Your task to perform on an android device: Add "razer deathadder" to the cart on walmart.com Image 0: 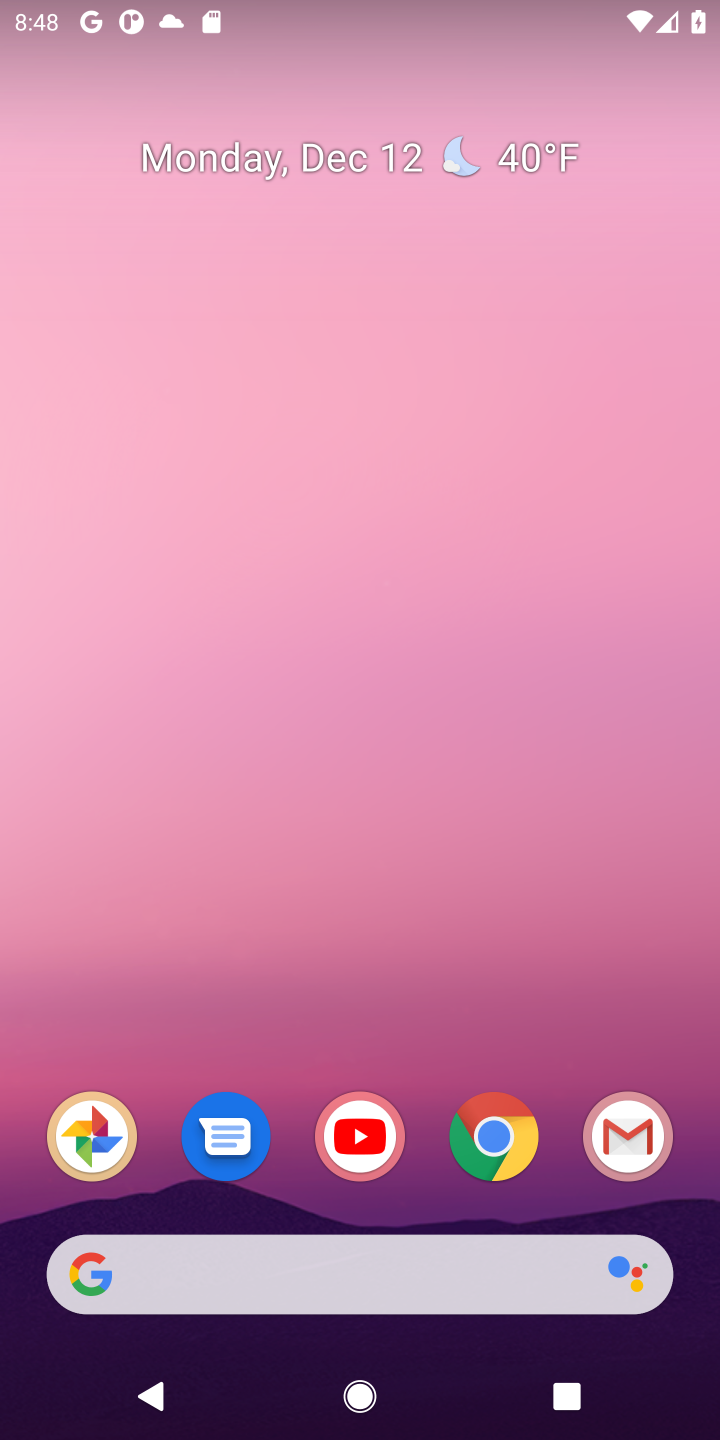
Step 0: click (490, 1151)
Your task to perform on an android device: Add "razer deathadder" to the cart on walmart.com Image 1: 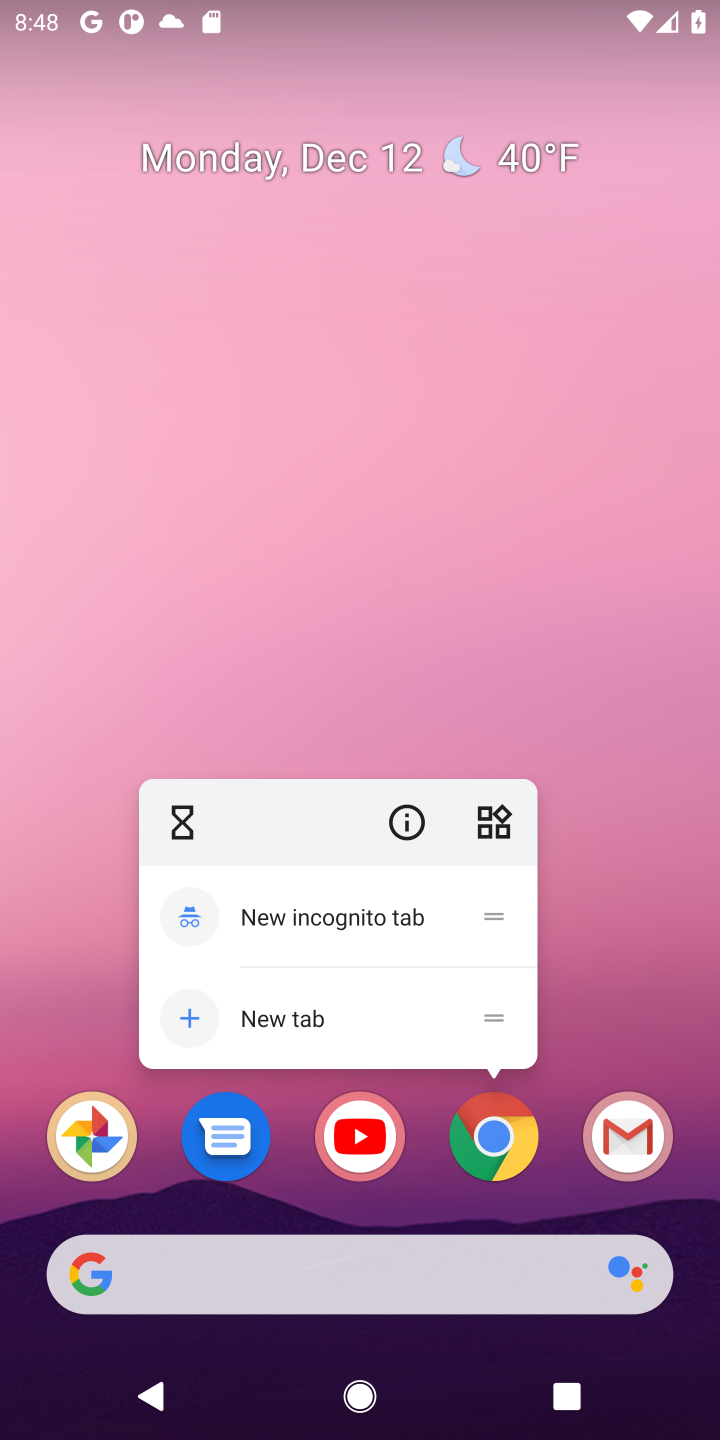
Step 1: click (503, 1143)
Your task to perform on an android device: Add "razer deathadder" to the cart on walmart.com Image 2: 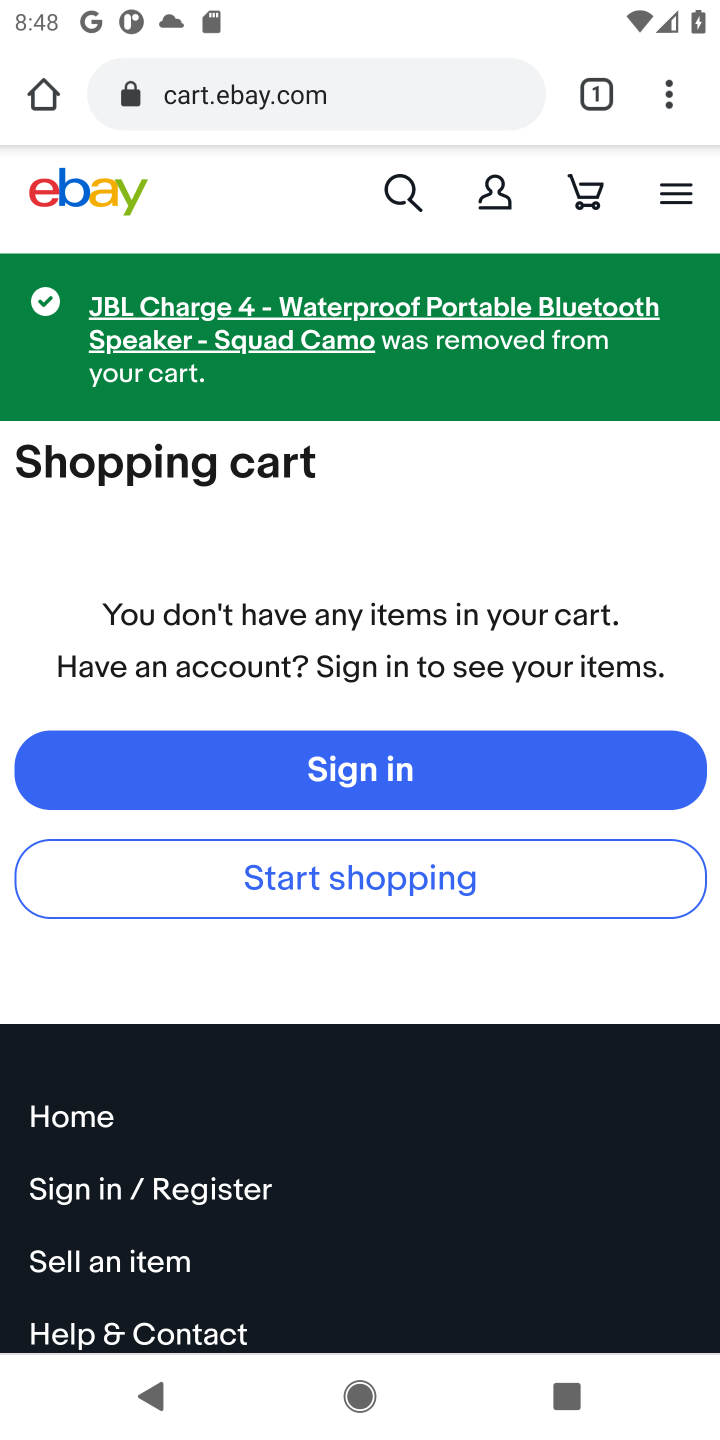
Step 2: click (262, 88)
Your task to perform on an android device: Add "razer deathadder" to the cart on walmart.com Image 3: 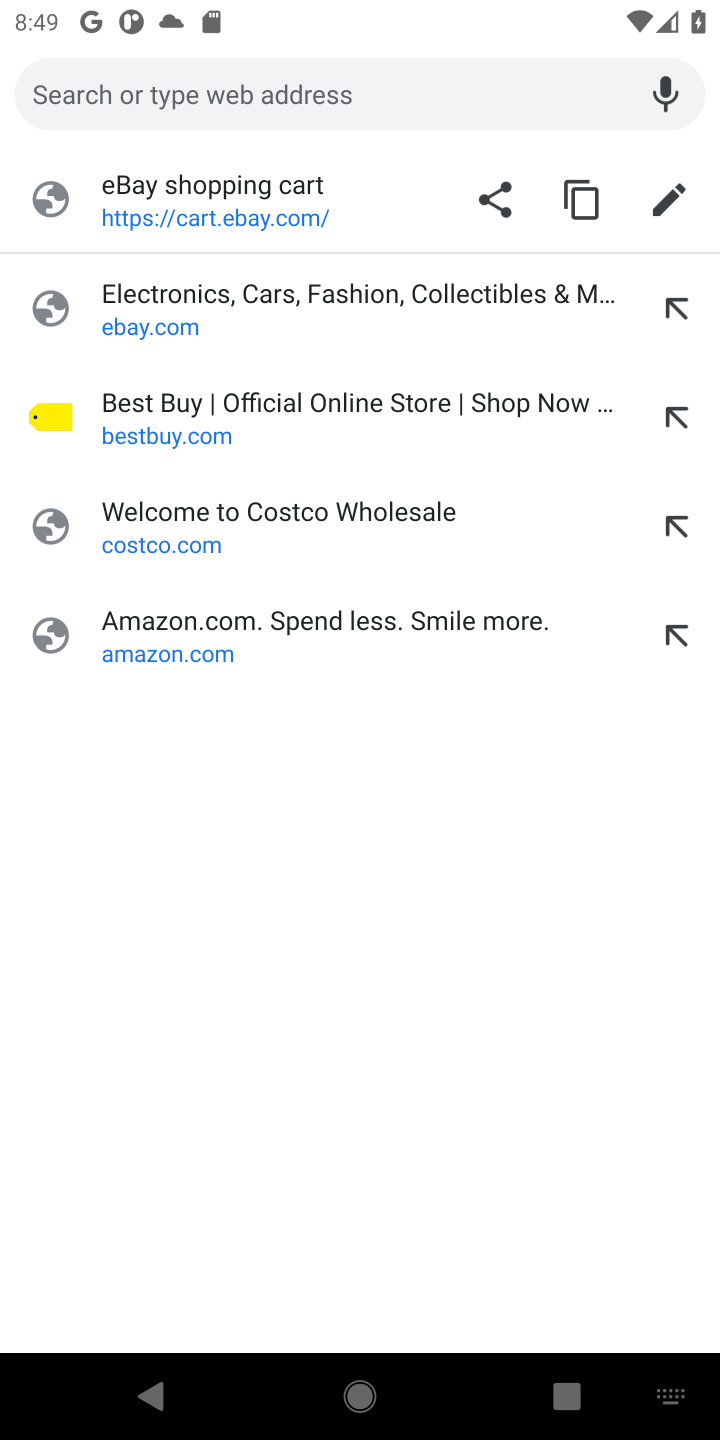
Step 3: type "walmart.com"
Your task to perform on an android device: Add "razer deathadder" to the cart on walmart.com Image 4: 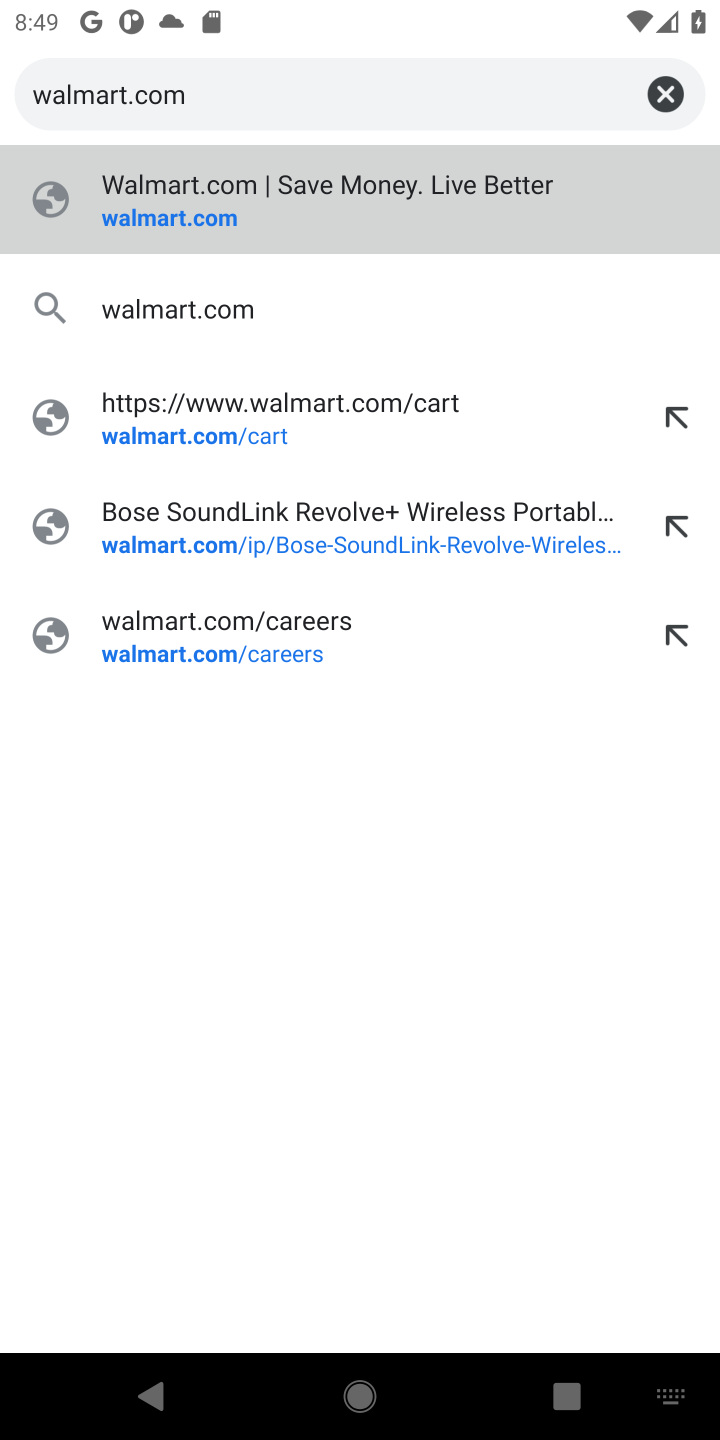
Step 4: click (189, 229)
Your task to perform on an android device: Add "razer deathadder" to the cart on walmart.com Image 5: 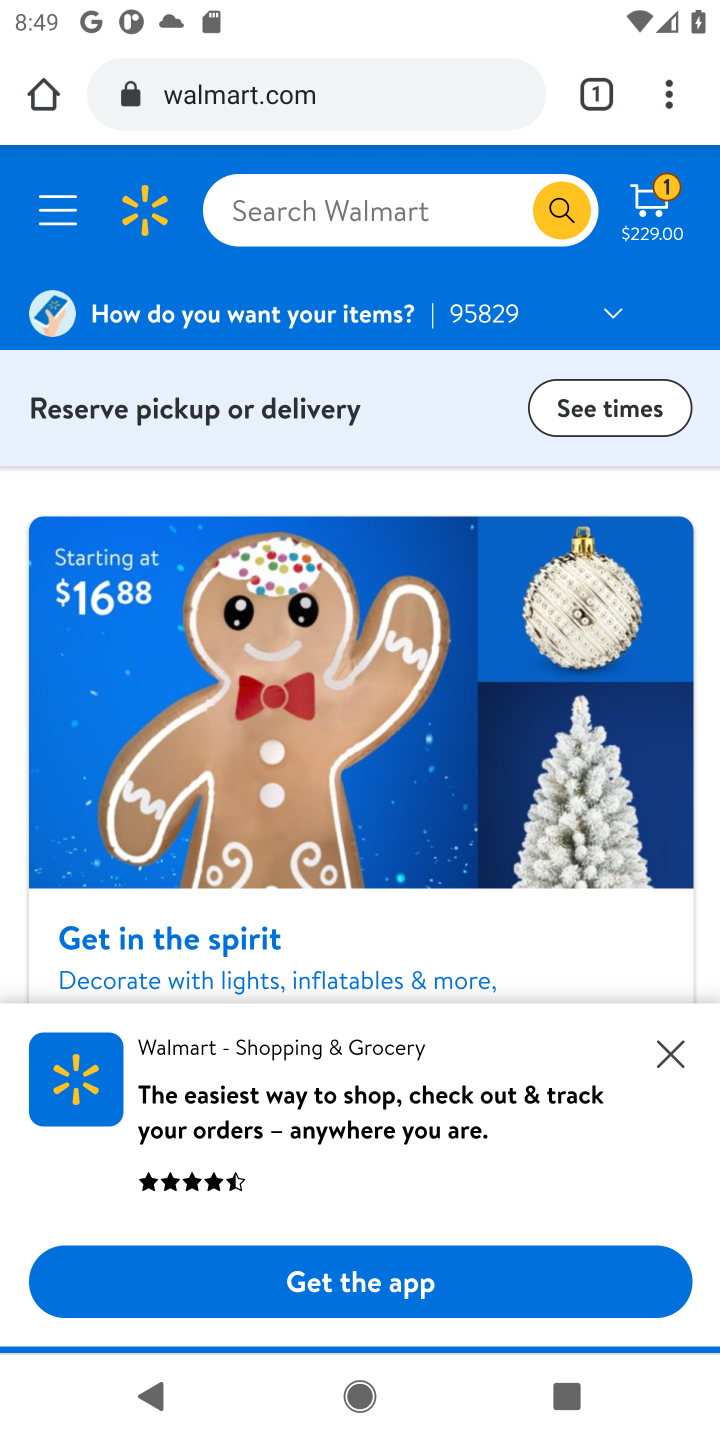
Step 5: click (293, 228)
Your task to perform on an android device: Add "razer deathadder" to the cart on walmart.com Image 6: 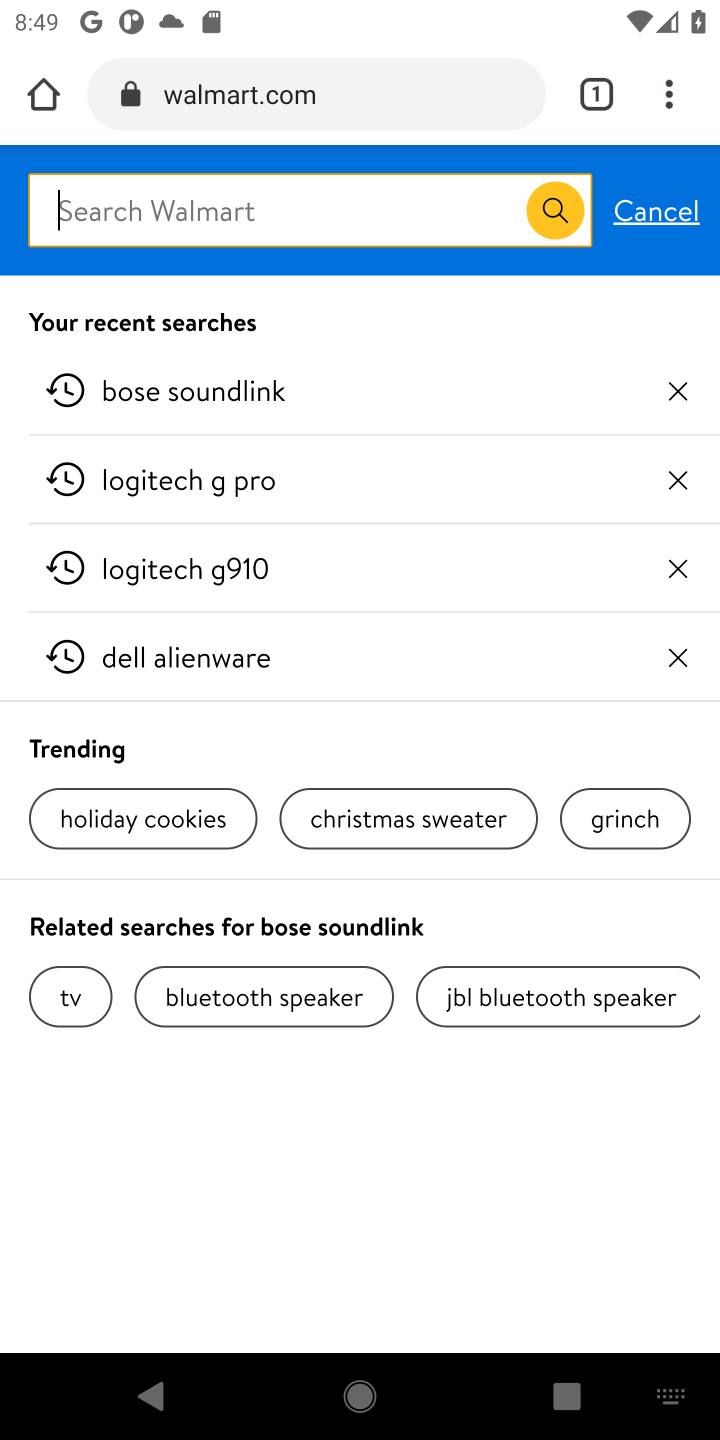
Step 6: type "razer deathadder"
Your task to perform on an android device: Add "razer deathadder" to the cart on walmart.com Image 7: 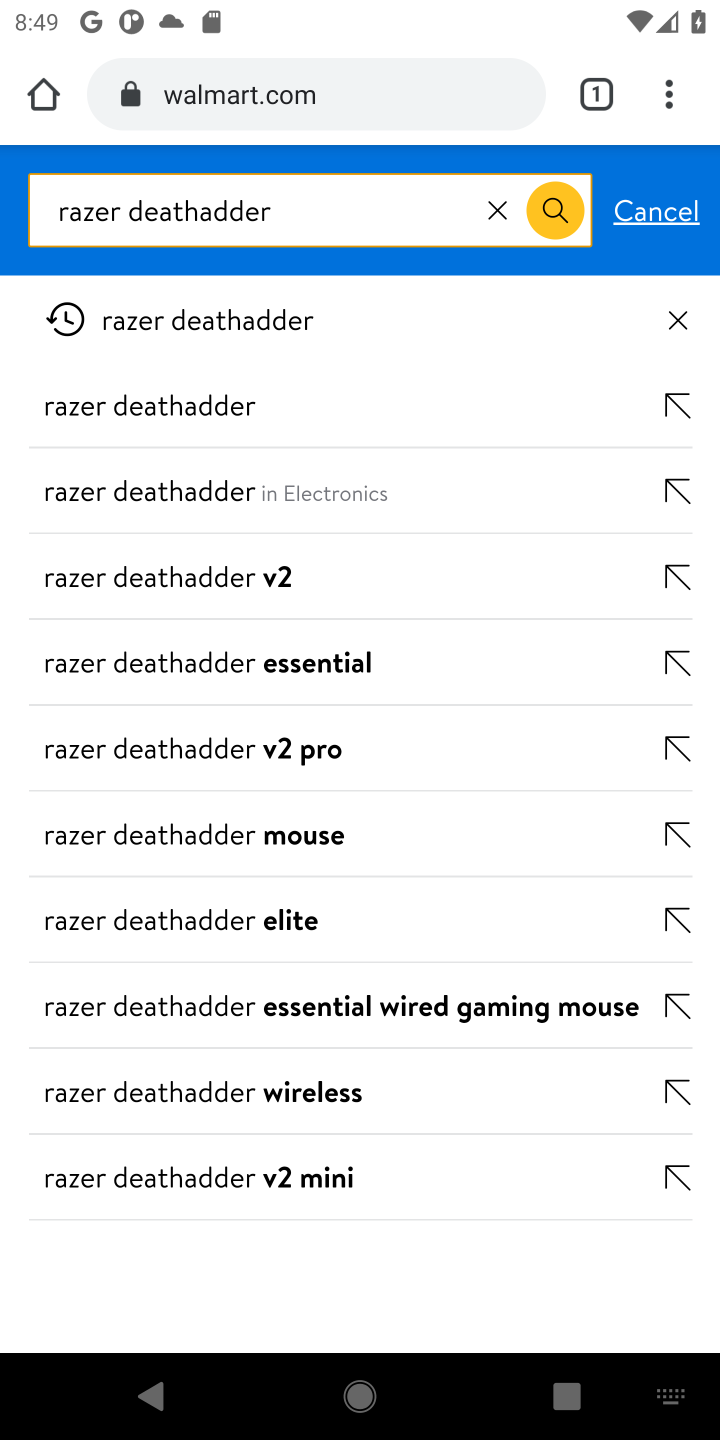
Step 7: click (149, 418)
Your task to perform on an android device: Add "razer deathadder" to the cart on walmart.com Image 8: 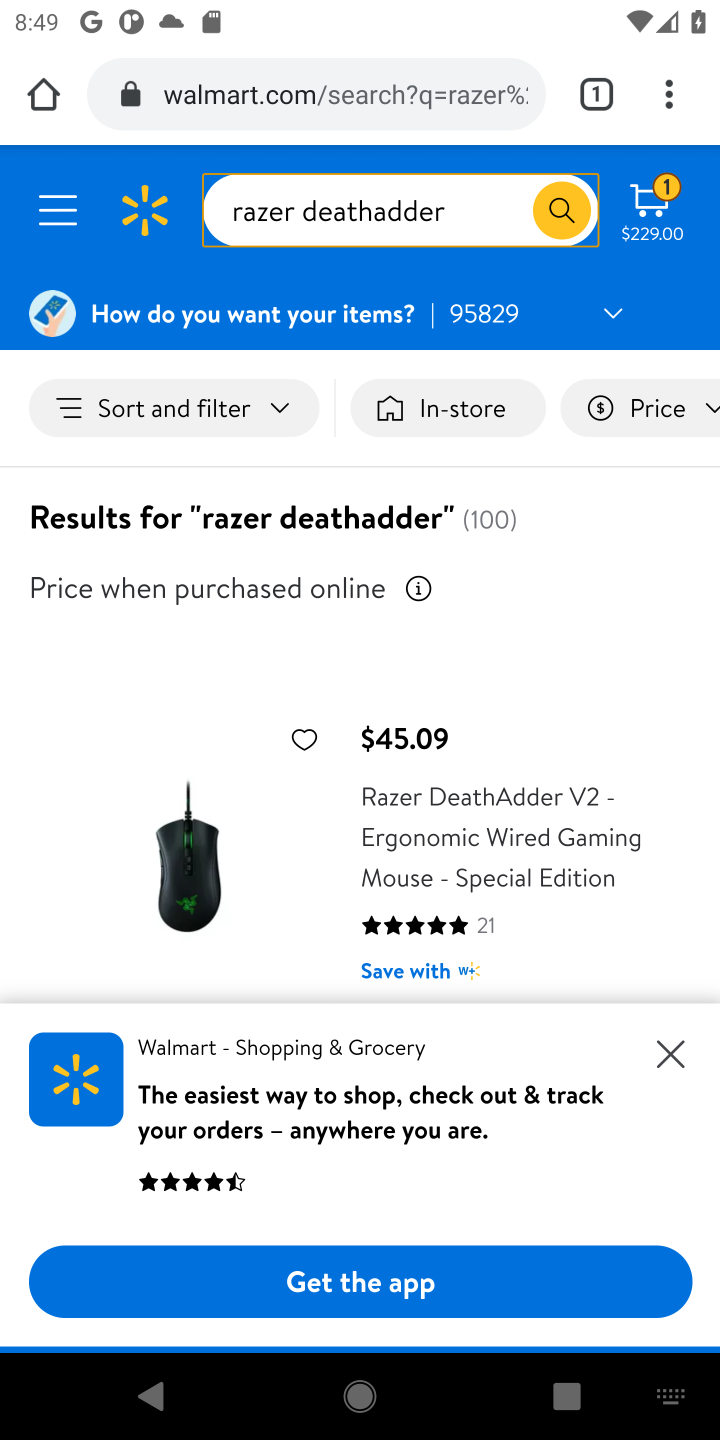
Step 8: drag from (268, 862) to (313, 394)
Your task to perform on an android device: Add "razer deathadder" to the cart on walmart.com Image 9: 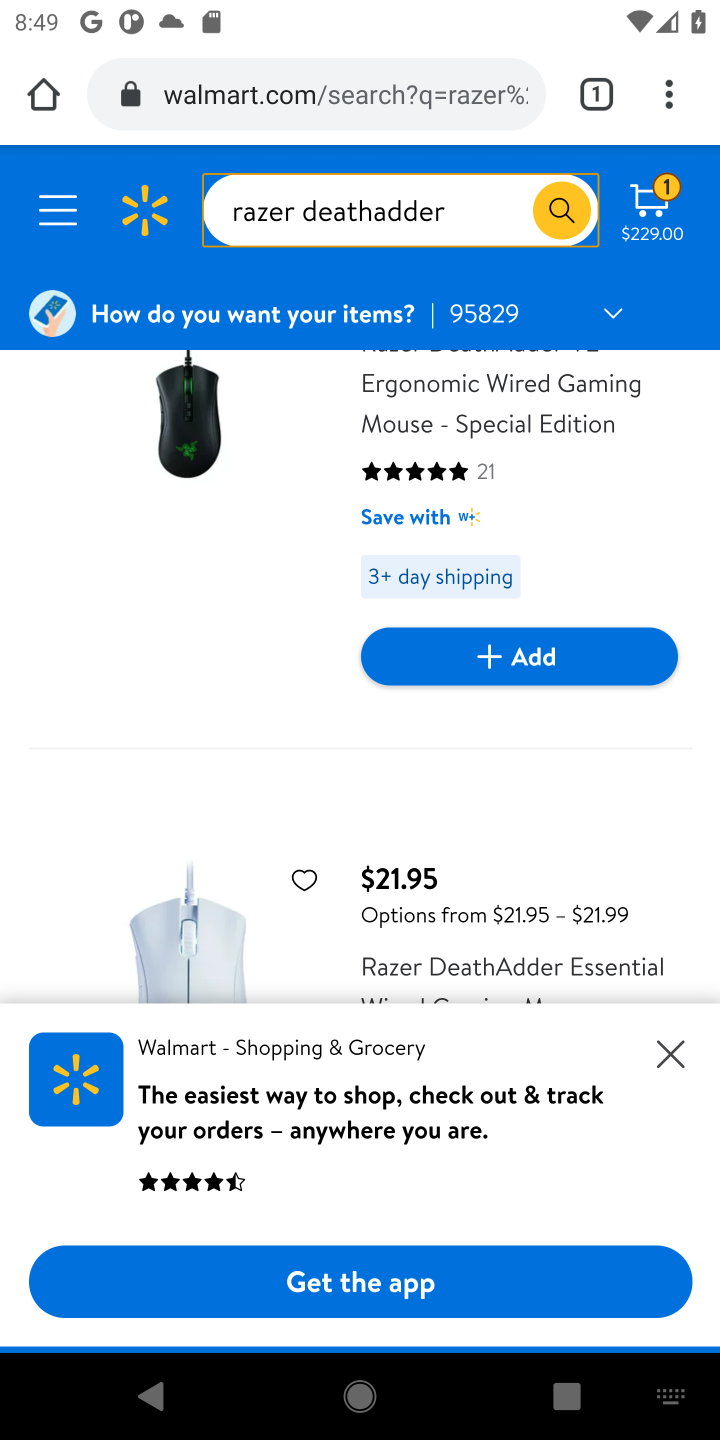
Step 9: click (476, 650)
Your task to perform on an android device: Add "razer deathadder" to the cart on walmart.com Image 10: 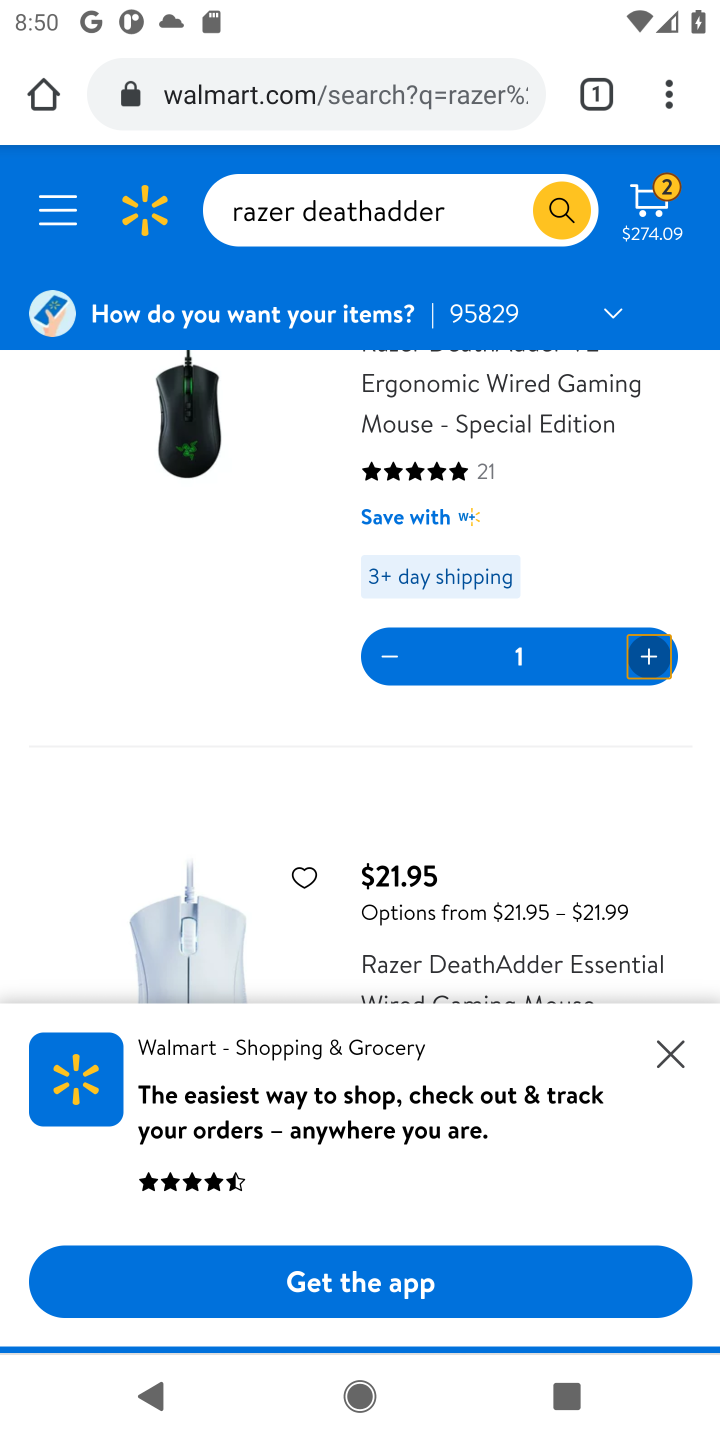
Step 10: task complete